Your task to perform on an android device: Open Chrome and go to the settings page Image 0: 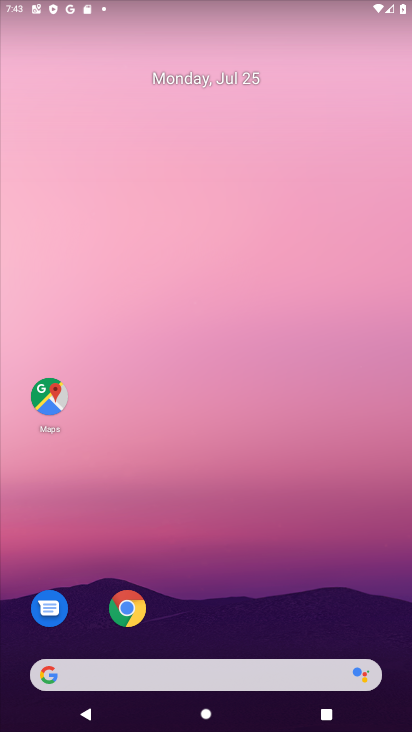
Step 0: drag from (220, 659) to (260, 82)
Your task to perform on an android device: Open Chrome and go to the settings page Image 1: 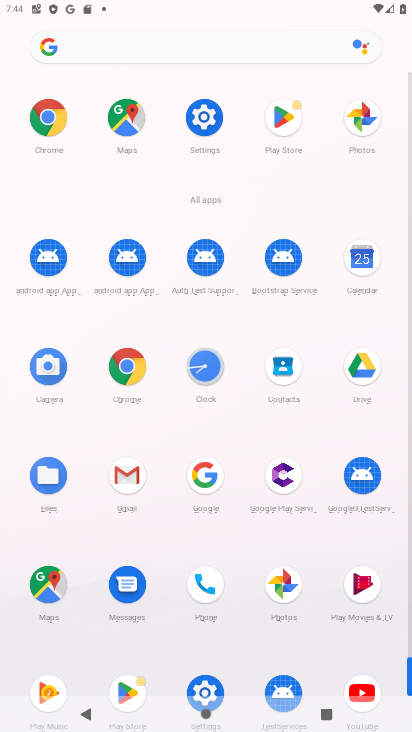
Step 1: click (54, 122)
Your task to perform on an android device: Open Chrome and go to the settings page Image 2: 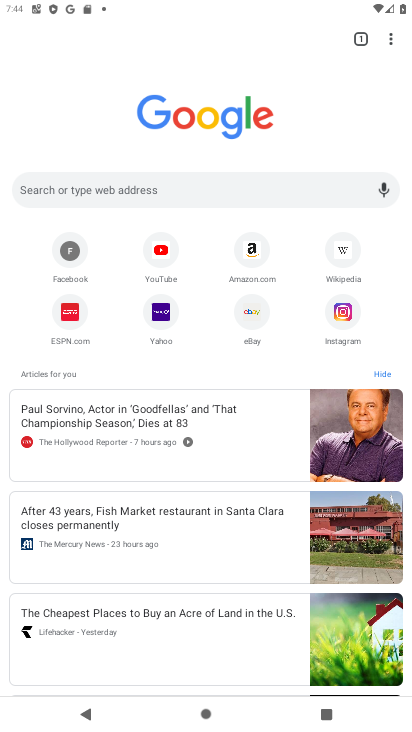
Step 2: click (395, 46)
Your task to perform on an android device: Open Chrome and go to the settings page Image 3: 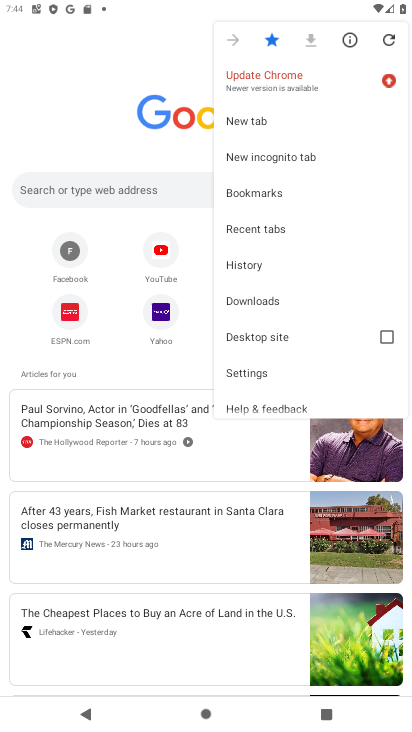
Step 3: click (263, 379)
Your task to perform on an android device: Open Chrome and go to the settings page Image 4: 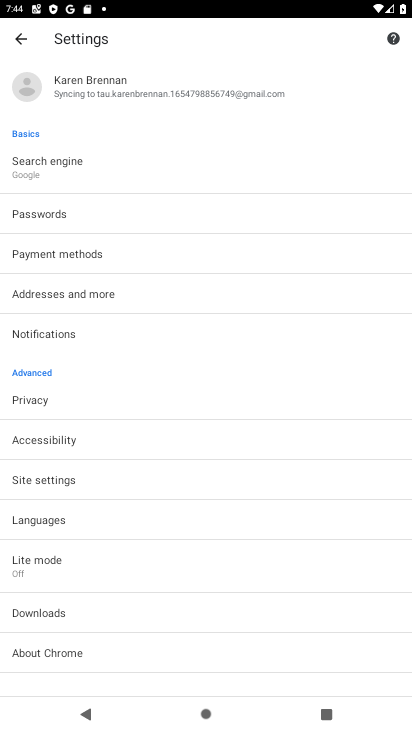
Step 4: task complete